Your task to perform on an android device: Open CNN.com Image 0: 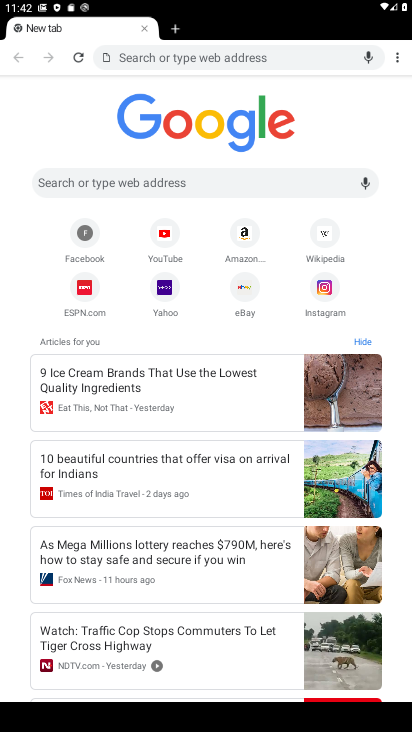
Step 0: type "CNN.com"
Your task to perform on an android device: Open CNN.com Image 1: 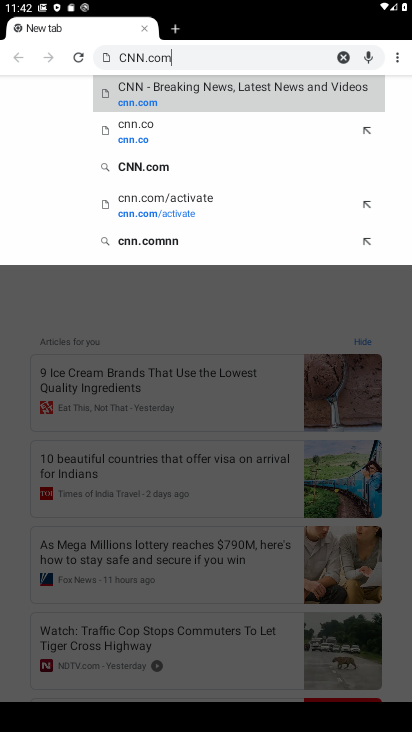
Step 1: press enter
Your task to perform on an android device: Open CNN.com Image 2: 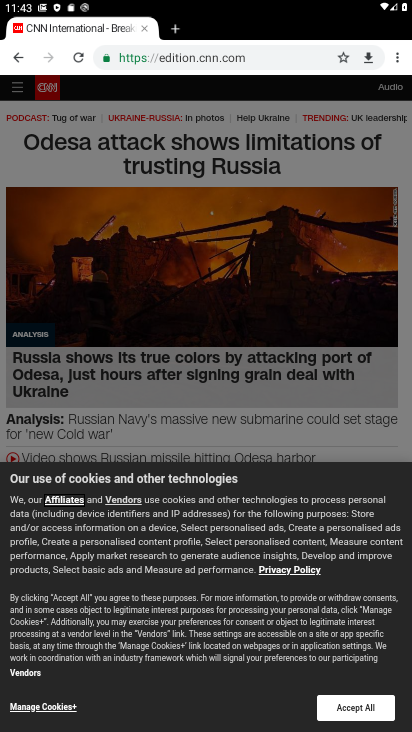
Step 2: task complete